Your task to perform on an android device: delete a single message in the gmail app Image 0: 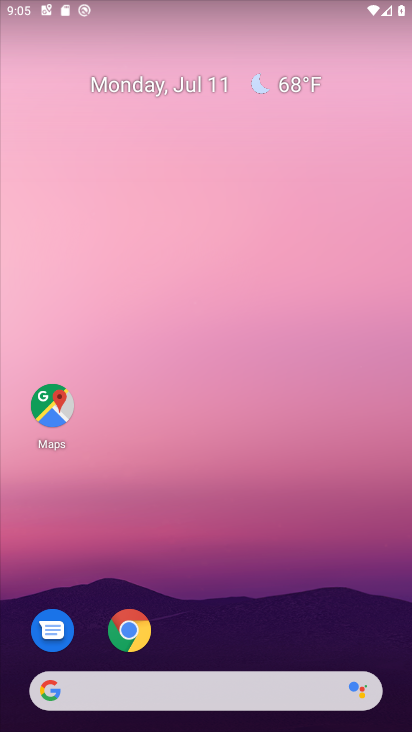
Step 0: drag from (215, 621) to (260, 143)
Your task to perform on an android device: delete a single message in the gmail app Image 1: 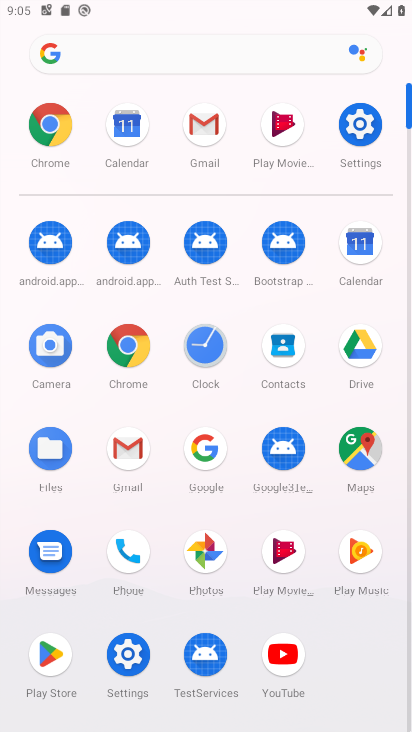
Step 1: click (136, 463)
Your task to perform on an android device: delete a single message in the gmail app Image 2: 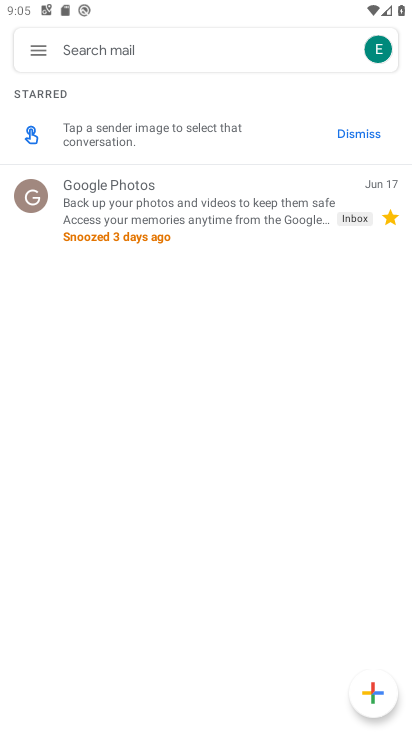
Step 2: click (30, 193)
Your task to perform on an android device: delete a single message in the gmail app Image 3: 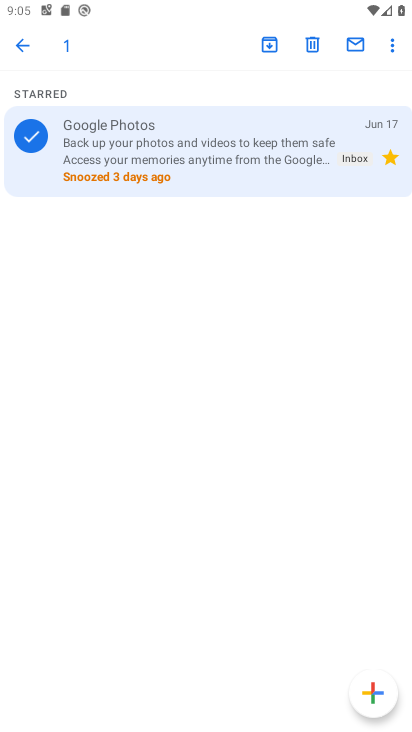
Step 3: click (313, 33)
Your task to perform on an android device: delete a single message in the gmail app Image 4: 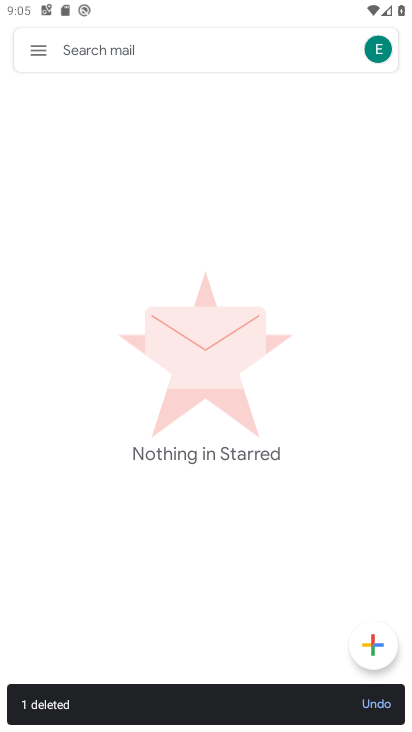
Step 4: task complete